Your task to perform on an android device: Show me popular games on the Play Store Image 0: 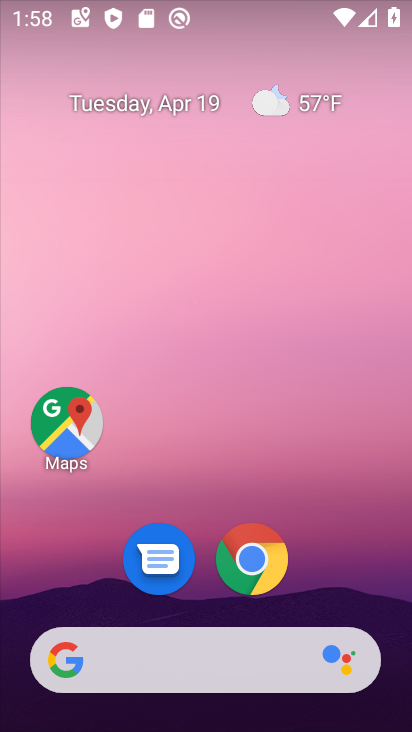
Step 0: drag from (214, 603) to (206, 66)
Your task to perform on an android device: Show me popular games on the Play Store Image 1: 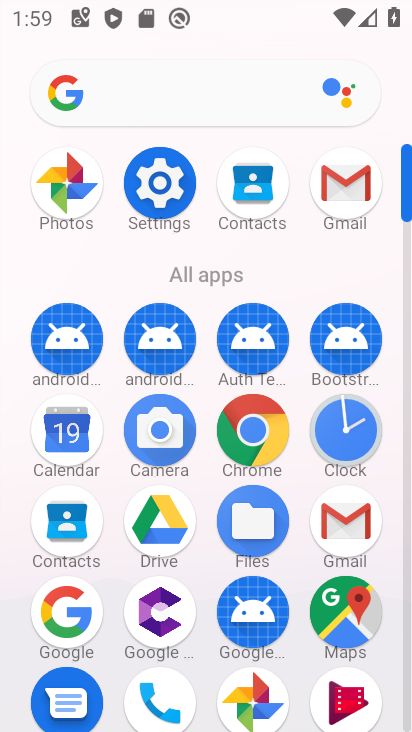
Step 1: drag from (295, 584) to (293, 76)
Your task to perform on an android device: Show me popular games on the Play Store Image 2: 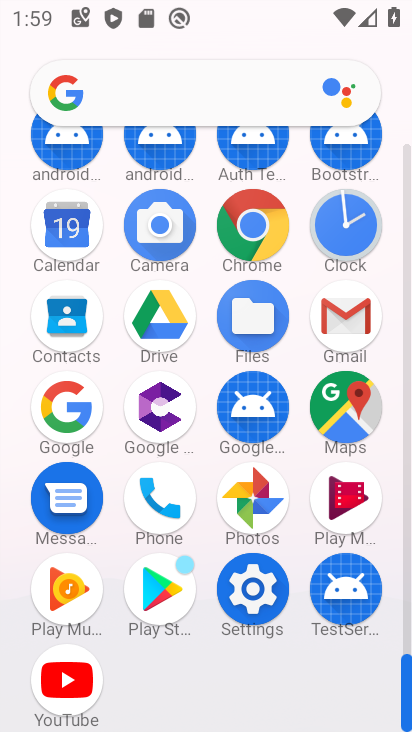
Step 2: click (159, 588)
Your task to perform on an android device: Show me popular games on the Play Store Image 3: 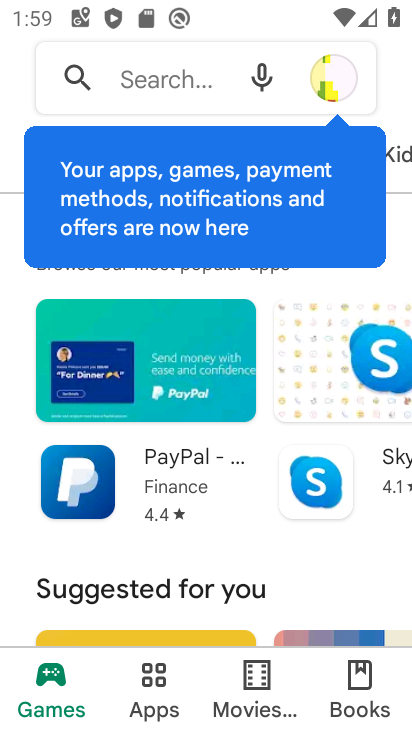
Step 3: drag from (325, 692) to (68, 697)
Your task to perform on an android device: Show me popular games on the Play Store Image 4: 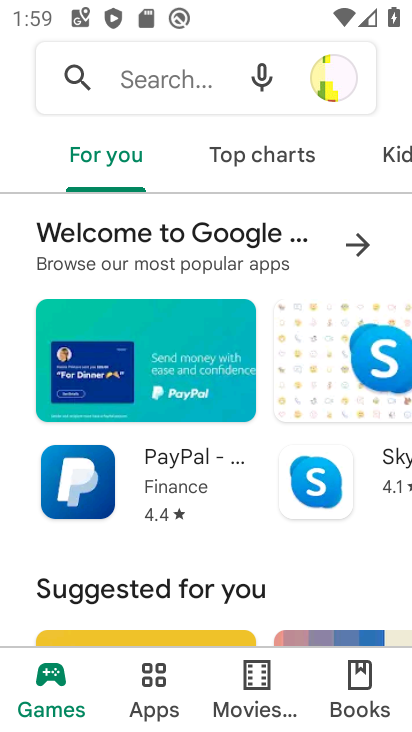
Step 4: click (54, 688)
Your task to perform on an android device: Show me popular games on the Play Store Image 5: 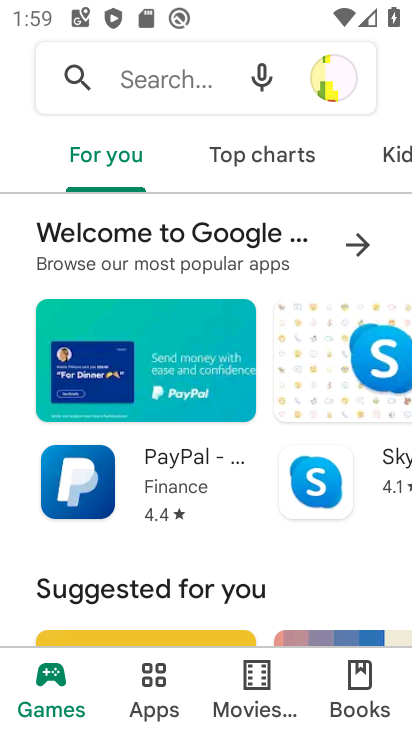
Step 5: drag from (292, 158) to (11, 163)
Your task to perform on an android device: Show me popular games on the Play Store Image 6: 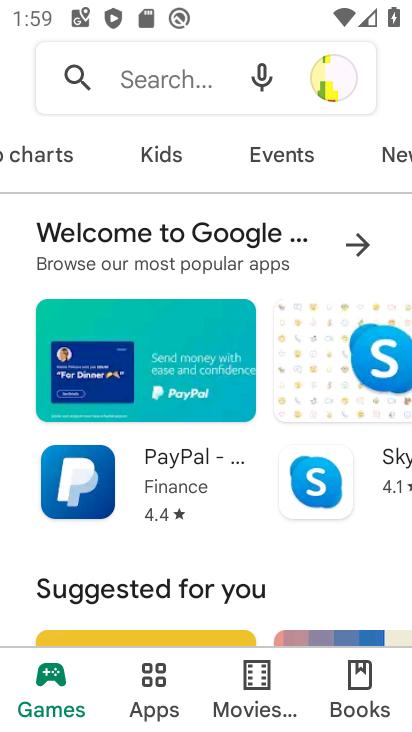
Step 6: drag from (325, 154) to (150, 157)
Your task to perform on an android device: Show me popular games on the Play Store Image 7: 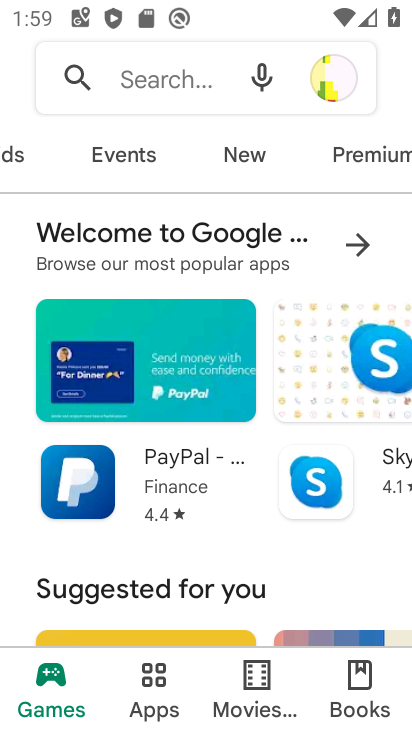
Step 7: drag from (355, 166) to (137, 174)
Your task to perform on an android device: Show me popular games on the Play Store Image 8: 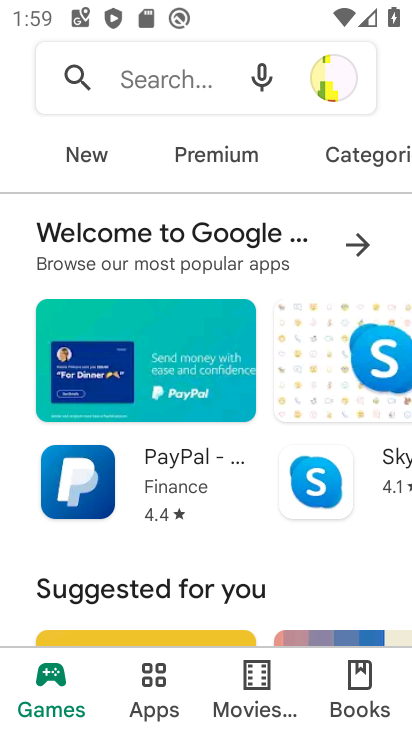
Step 8: drag from (379, 163) to (134, 167)
Your task to perform on an android device: Show me popular games on the Play Store Image 9: 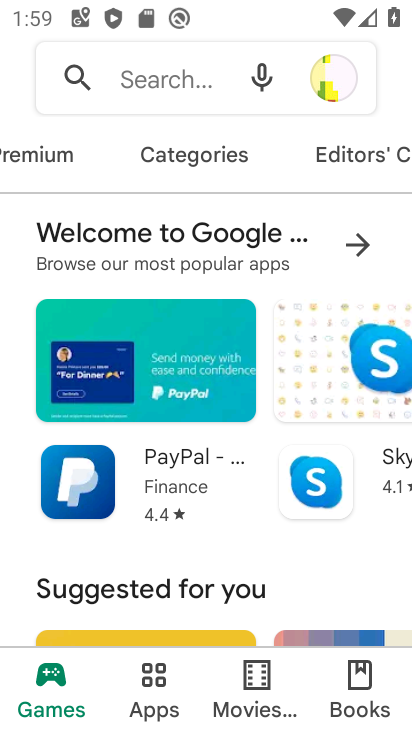
Step 9: drag from (372, 158) to (189, 152)
Your task to perform on an android device: Show me popular games on the Play Store Image 10: 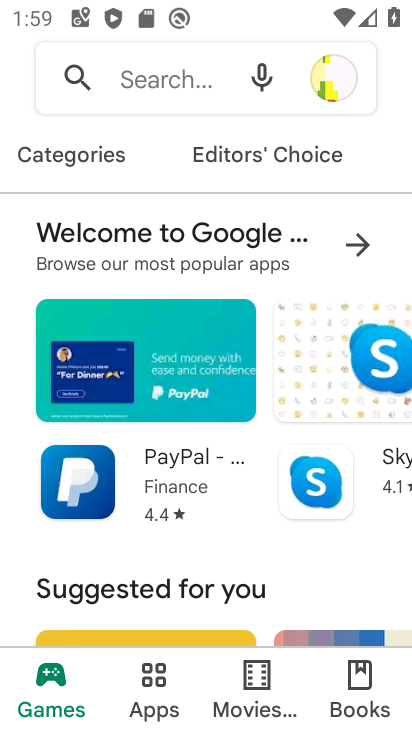
Step 10: drag from (190, 577) to (218, 196)
Your task to perform on an android device: Show me popular games on the Play Store Image 11: 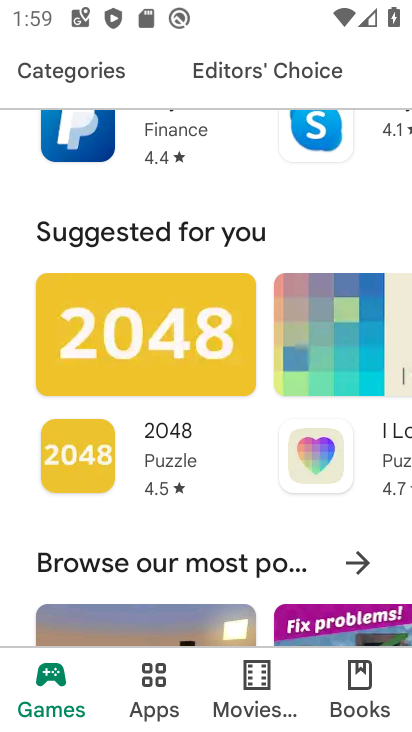
Step 11: drag from (191, 562) to (223, 273)
Your task to perform on an android device: Show me popular games on the Play Store Image 12: 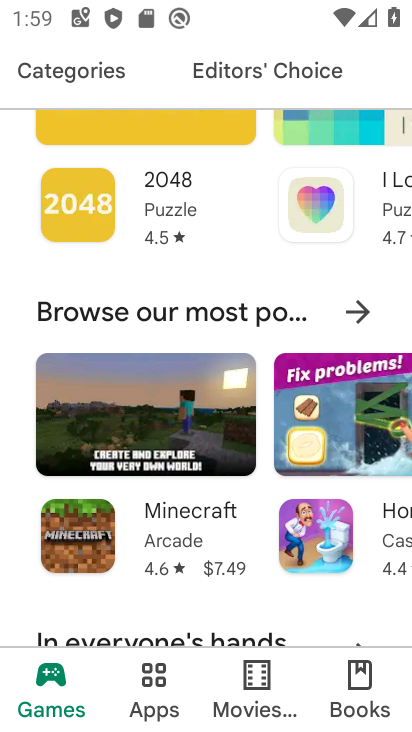
Step 12: click (352, 306)
Your task to perform on an android device: Show me popular games on the Play Store Image 13: 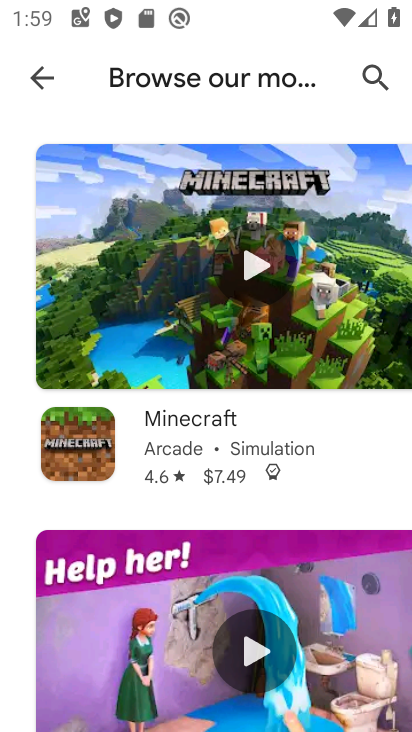
Step 13: task complete